Your task to perform on an android device: turn off javascript in the chrome app Image 0: 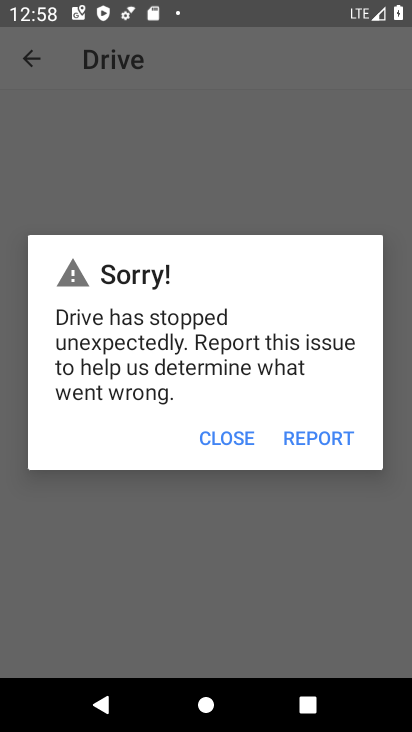
Step 0: drag from (203, 13) to (237, 705)
Your task to perform on an android device: turn off javascript in the chrome app Image 1: 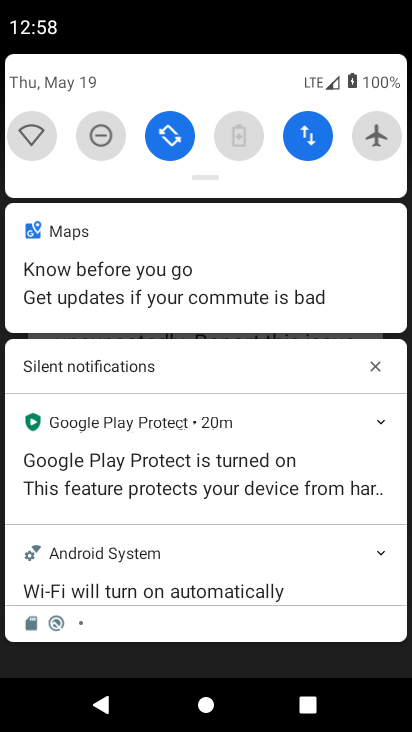
Step 1: click (363, 668)
Your task to perform on an android device: turn off javascript in the chrome app Image 2: 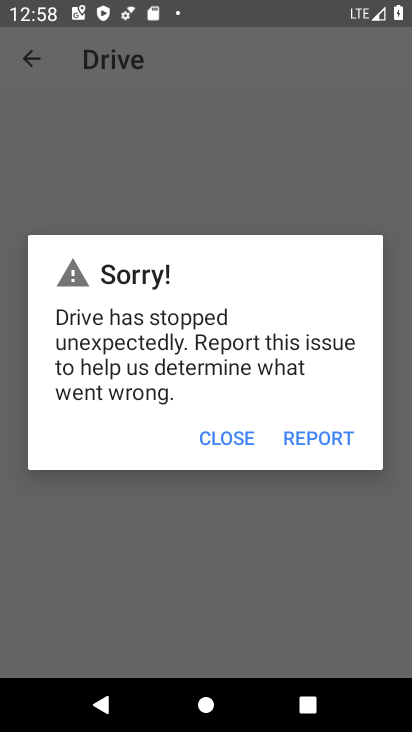
Step 2: press home button
Your task to perform on an android device: turn off javascript in the chrome app Image 3: 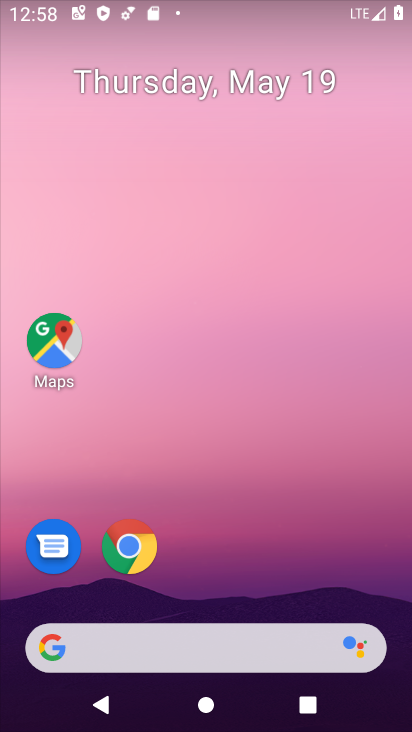
Step 3: click (132, 549)
Your task to perform on an android device: turn off javascript in the chrome app Image 4: 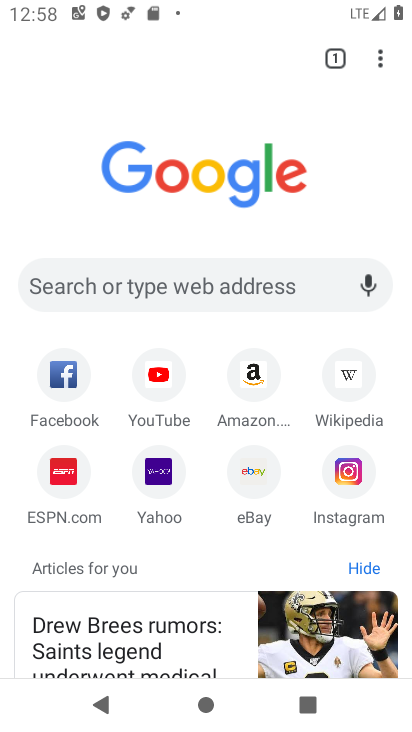
Step 4: click (388, 68)
Your task to perform on an android device: turn off javascript in the chrome app Image 5: 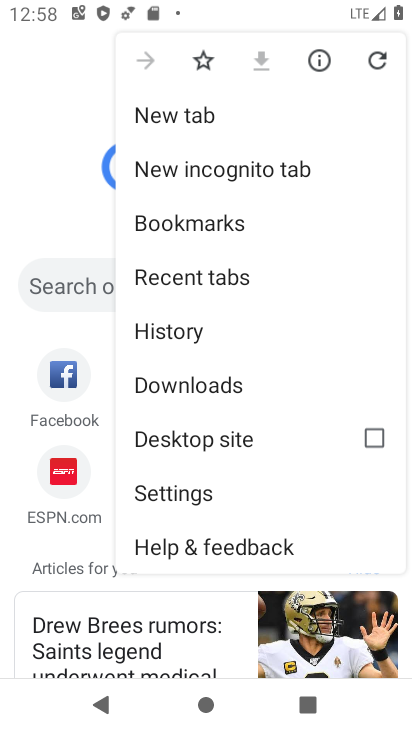
Step 5: click (165, 486)
Your task to perform on an android device: turn off javascript in the chrome app Image 6: 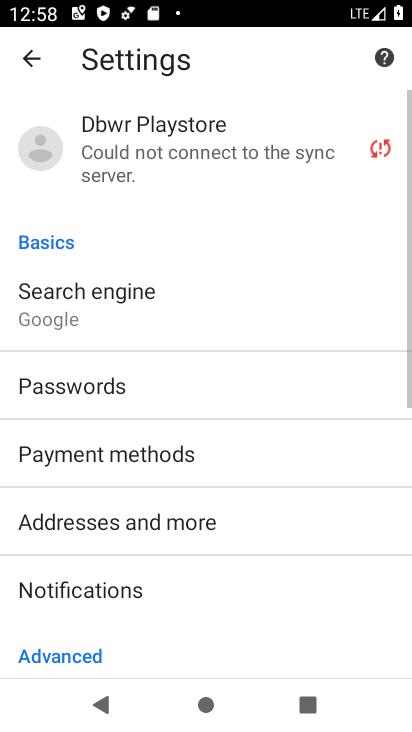
Step 6: drag from (84, 536) to (185, 6)
Your task to perform on an android device: turn off javascript in the chrome app Image 7: 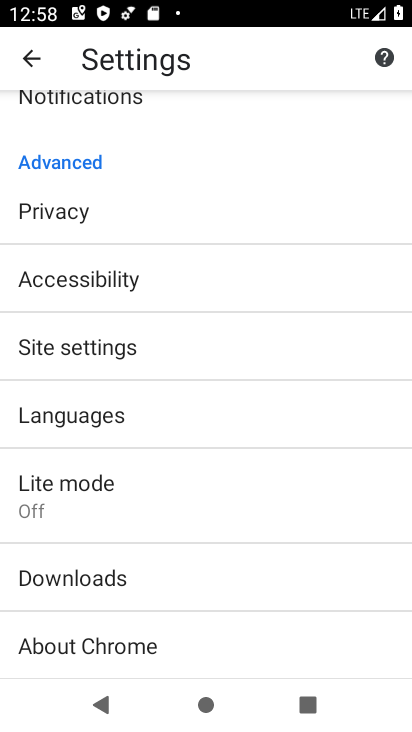
Step 7: click (78, 613)
Your task to perform on an android device: turn off javascript in the chrome app Image 8: 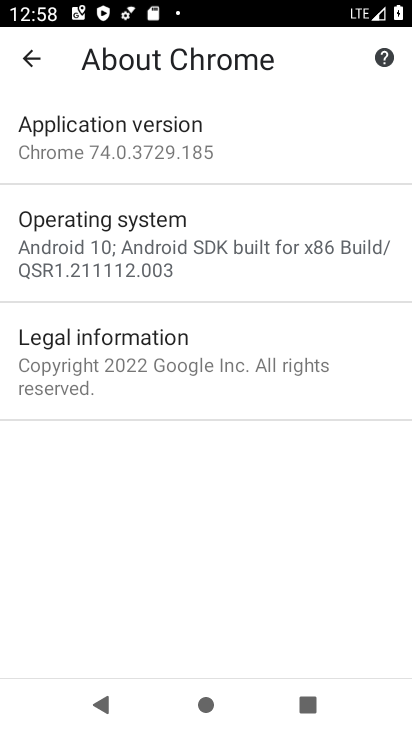
Step 8: click (26, 53)
Your task to perform on an android device: turn off javascript in the chrome app Image 9: 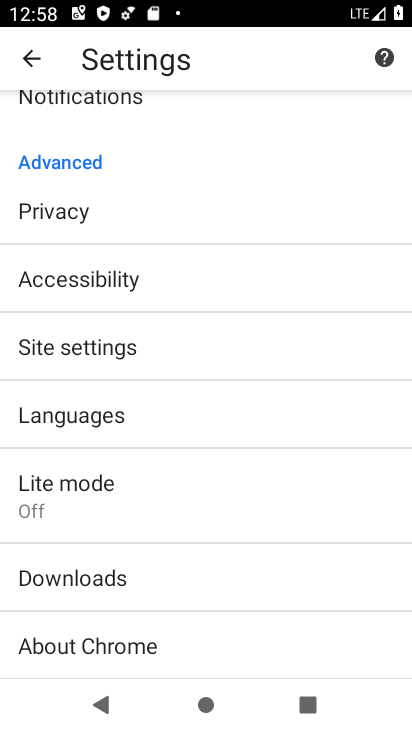
Step 9: click (123, 357)
Your task to perform on an android device: turn off javascript in the chrome app Image 10: 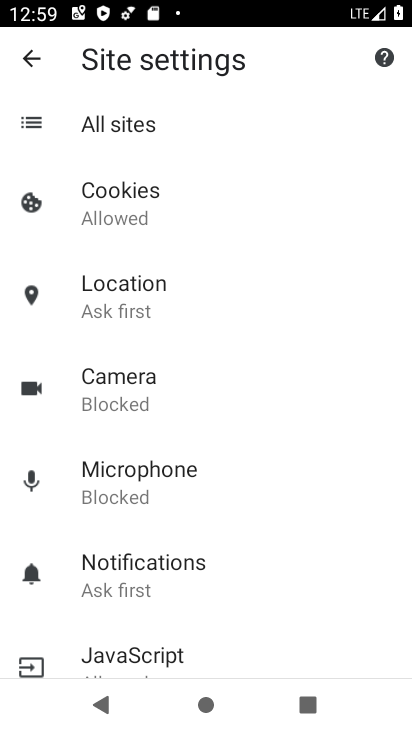
Step 10: click (64, 650)
Your task to perform on an android device: turn off javascript in the chrome app Image 11: 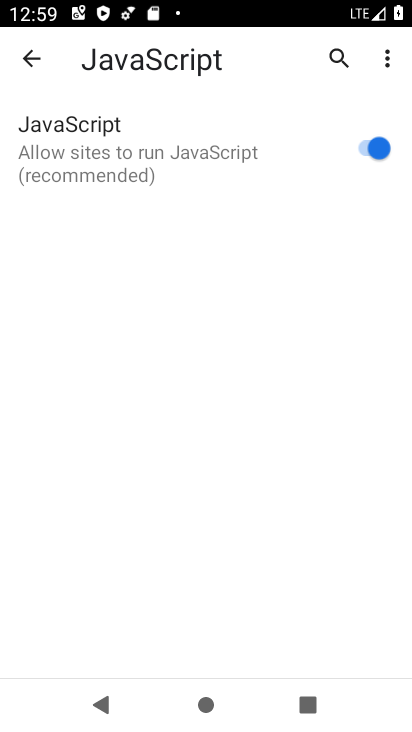
Step 11: click (369, 135)
Your task to perform on an android device: turn off javascript in the chrome app Image 12: 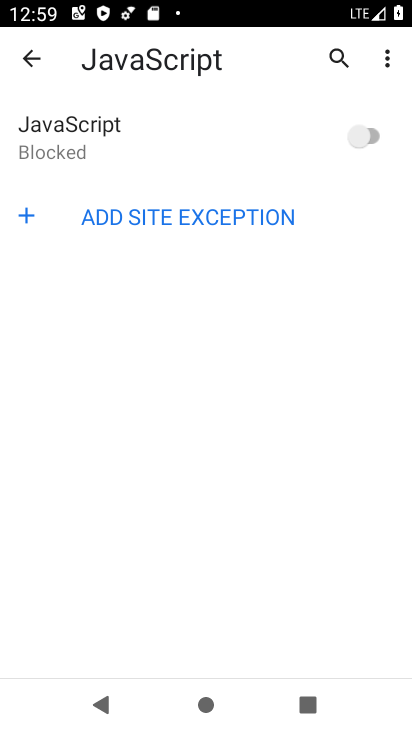
Step 12: task complete